Your task to perform on an android device: change text size in settings app Image 0: 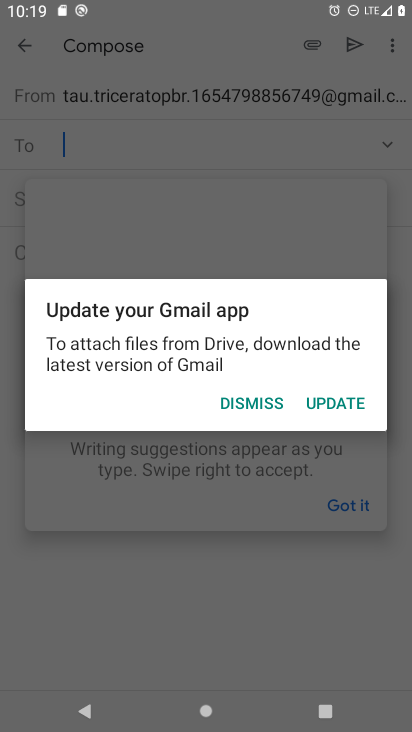
Step 0: press home button
Your task to perform on an android device: change text size in settings app Image 1: 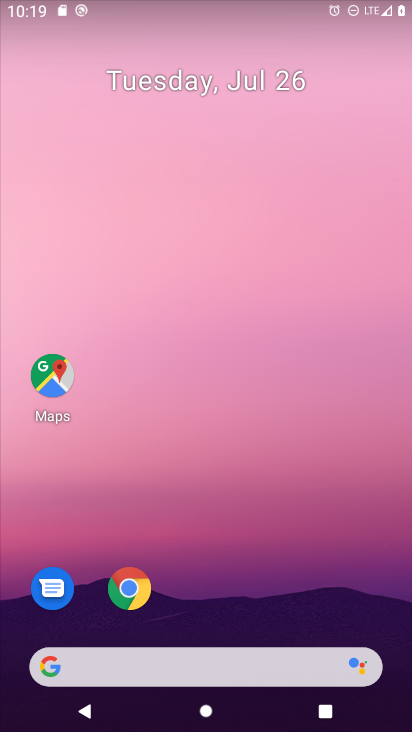
Step 1: drag from (224, 675) to (218, 267)
Your task to perform on an android device: change text size in settings app Image 2: 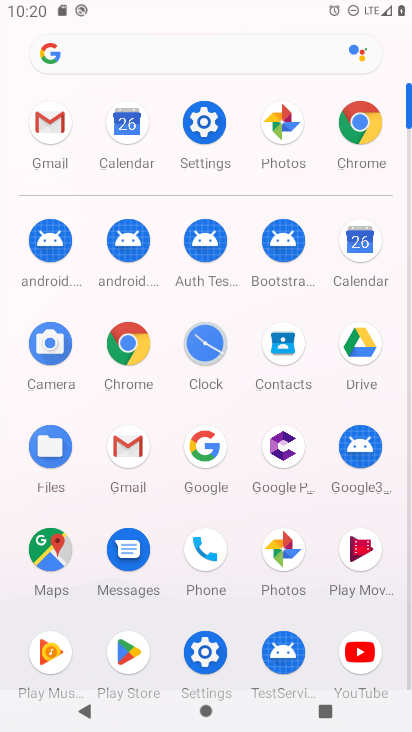
Step 2: click (212, 135)
Your task to perform on an android device: change text size in settings app Image 3: 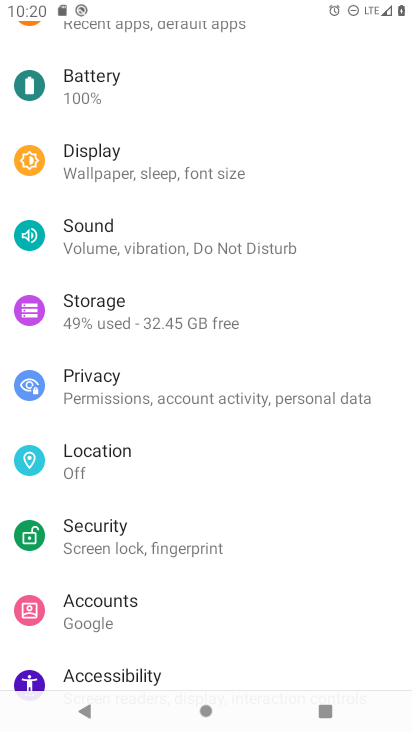
Step 3: click (133, 170)
Your task to perform on an android device: change text size in settings app Image 4: 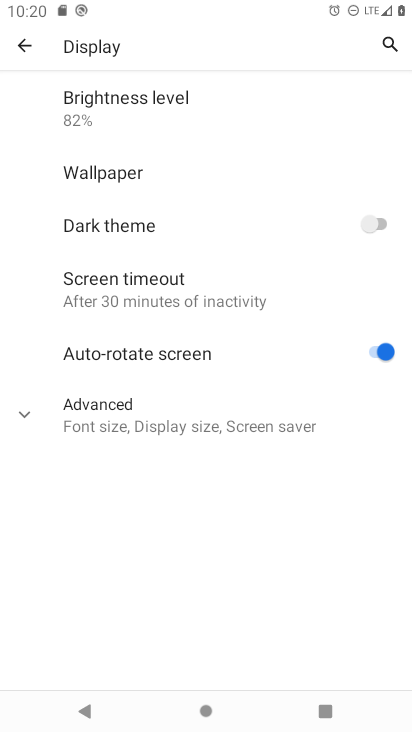
Step 4: click (110, 419)
Your task to perform on an android device: change text size in settings app Image 5: 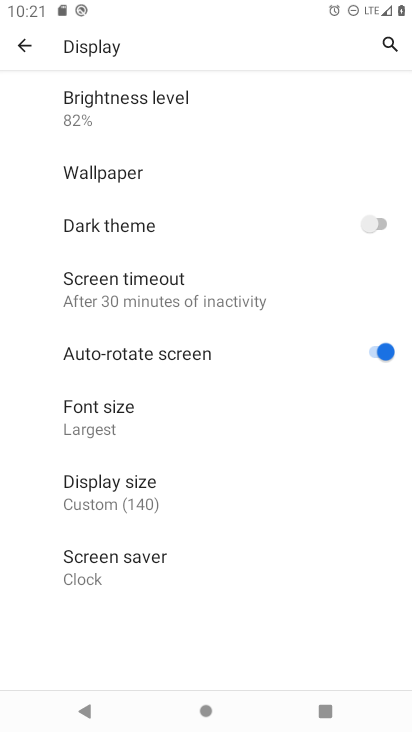
Step 5: click (148, 427)
Your task to perform on an android device: change text size in settings app Image 6: 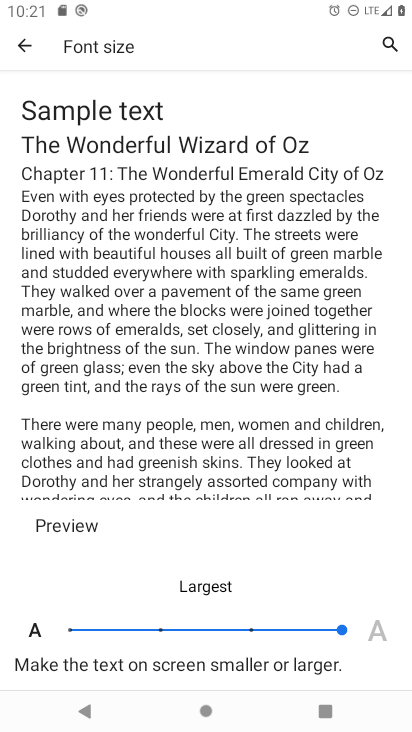
Step 6: task complete